Your task to perform on an android device: Open Reddit.com Image 0: 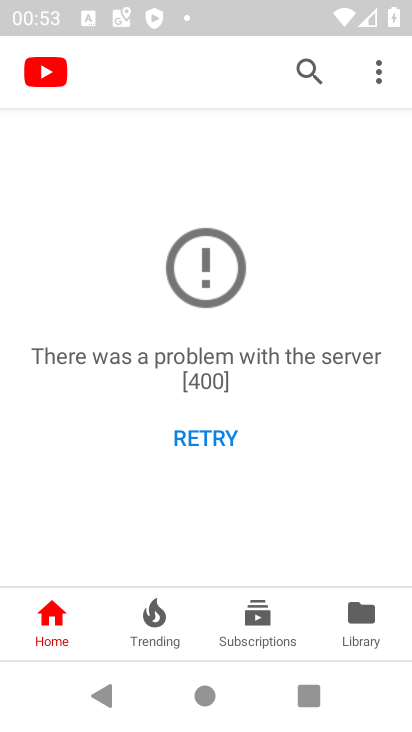
Step 0: press home button
Your task to perform on an android device: Open Reddit.com Image 1: 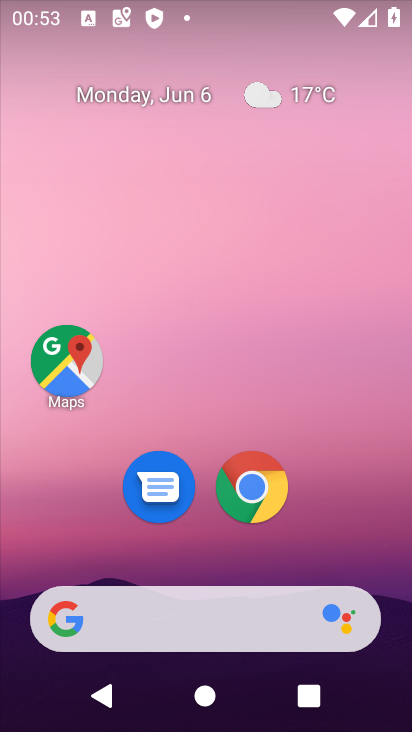
Step 1: click (260, 486)
Your task to perform on an android device: Open Reddit.com Image 2: 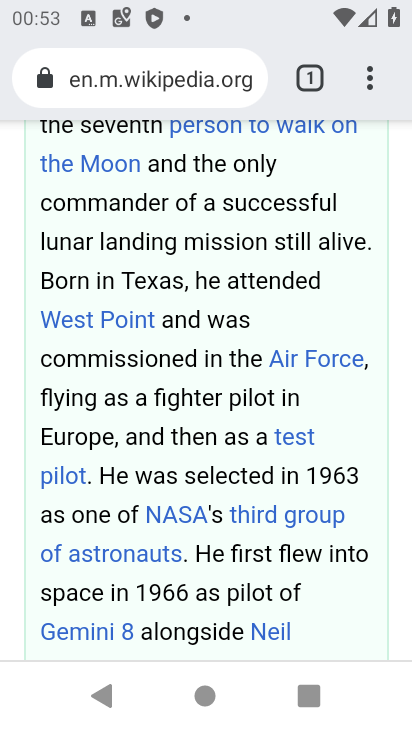
Step 2: click (223, 57)
Your task to perform on an android device: Open Reddit.com Image 3: 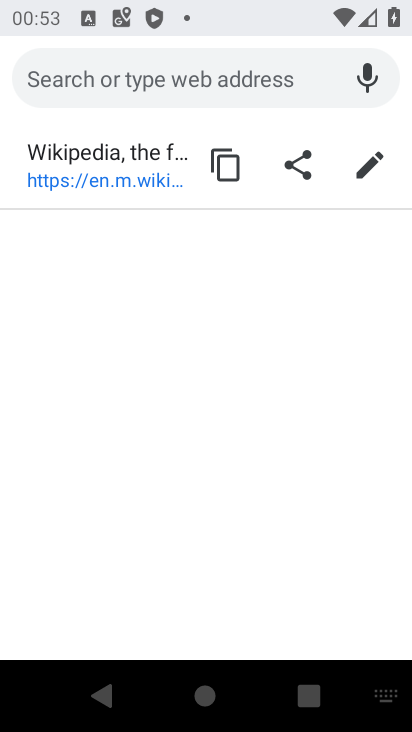
Step 3: type "reddit.com"
Your task to perform on an android device: Open Reddit.com Image 4: 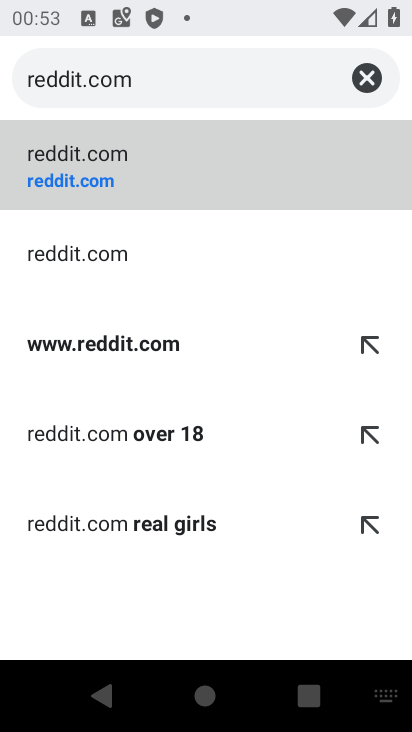
Step 4: click (91, 156)
Your task to perform on an android device: Open Reddit.com Image 5: 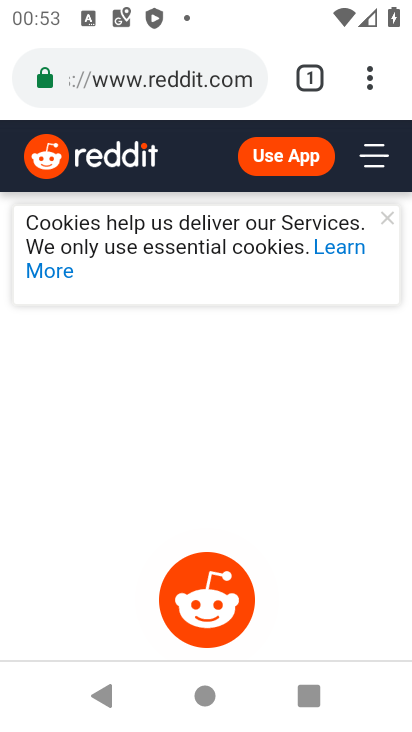
Step 5: task complete